Your task to perform on an android device: open device folders in google photos Image 0: 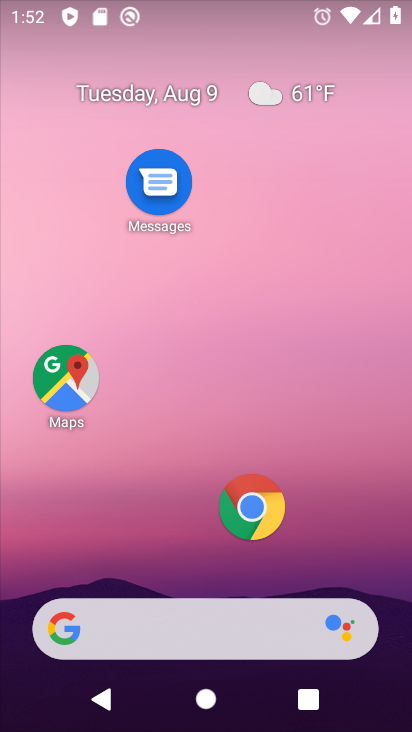
Step 0: drag from (153, 502) to (191, 19)
Your task to perform on an android device: open device folders in google photos Image 1: 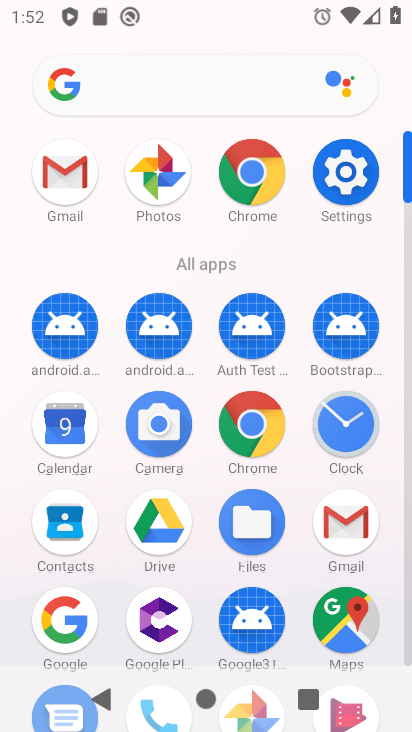
Step 1: click (162, 178)
Your task to perform on an android device: open device folders in google photos Image 2: 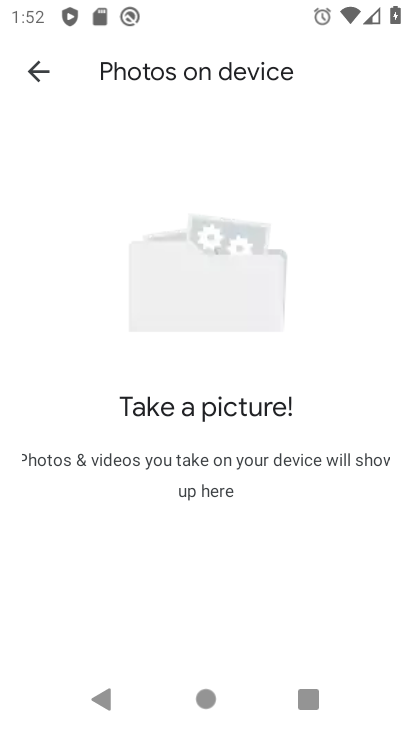
Step 2: click (46, 70)
Your task to perform on an android device: open device folders in google photos Image 3: 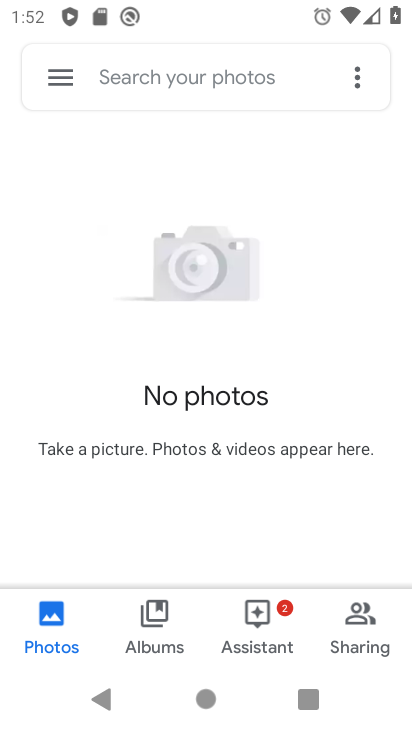
Step 3: click (60, 79)
Your task to perform on an android device: open device folders in google photos Image 4: 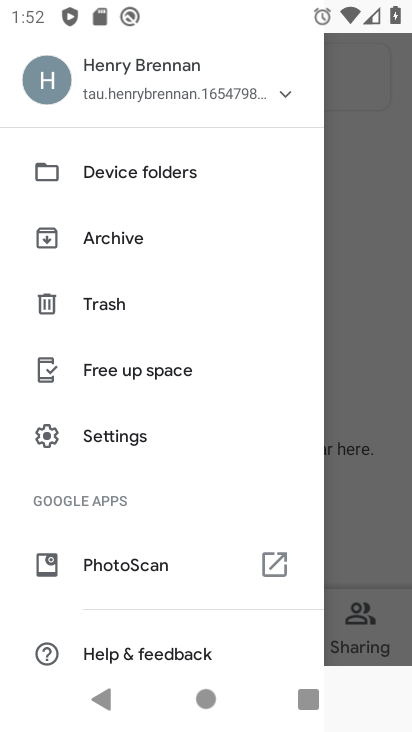
Step 4: click (116, 172)
Your task to perform on an android device: open device folders in google photos Image 5: 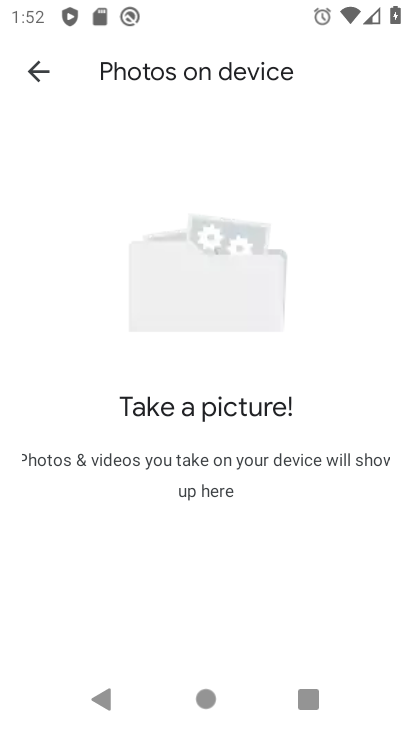
Step 5: task complete